Your task to perform on an android device: turn on notifications settings in the gmail app Image 0: 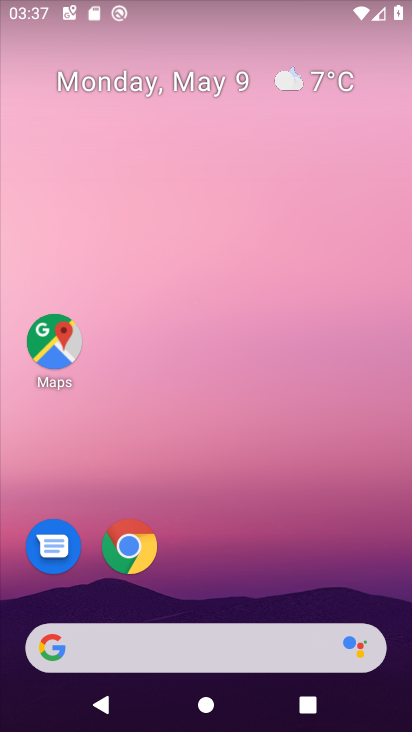
Step 0: drag from (254, 574) to (205, 29)
Your task to perform on an android device: turn on notifications settings in the gmail app Image 1: 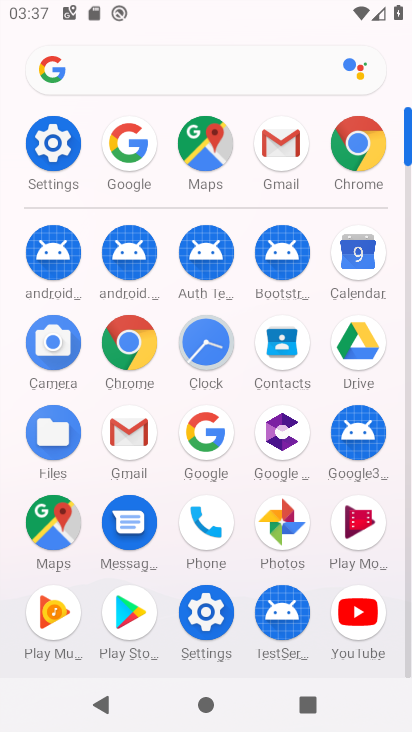
Step 1: click (276, 150)
Your task to perform on an android device: turn on notifications settings in the gmail app Image 2: 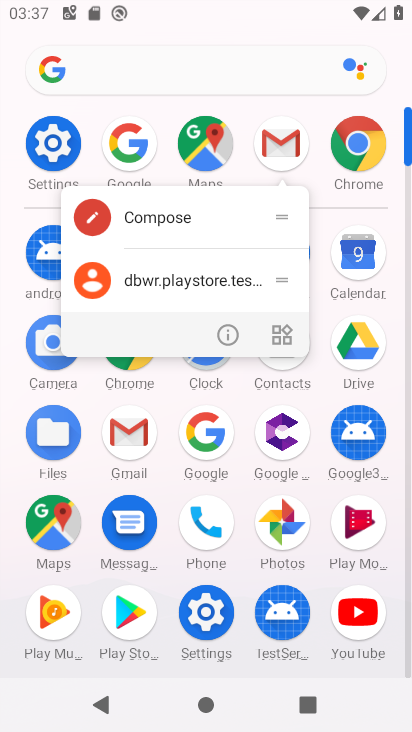
Step 2: click (285, 137)
Your task to perform on an android device: turn on notifications settings in the gmail app Image 3: 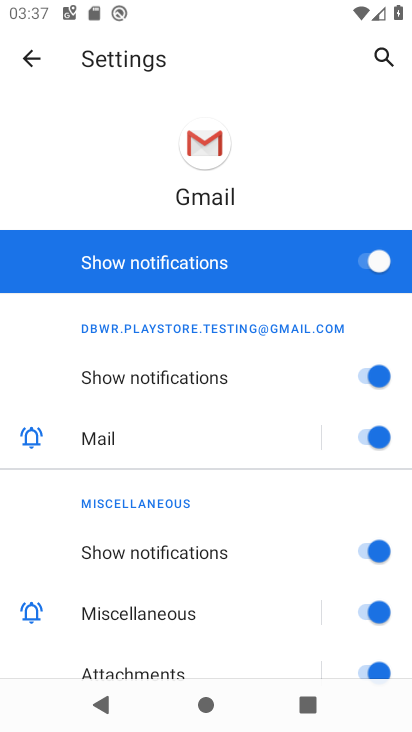
Step 3: task complete